Your task to perform on an android device: change the upload size in google photos Image 0: 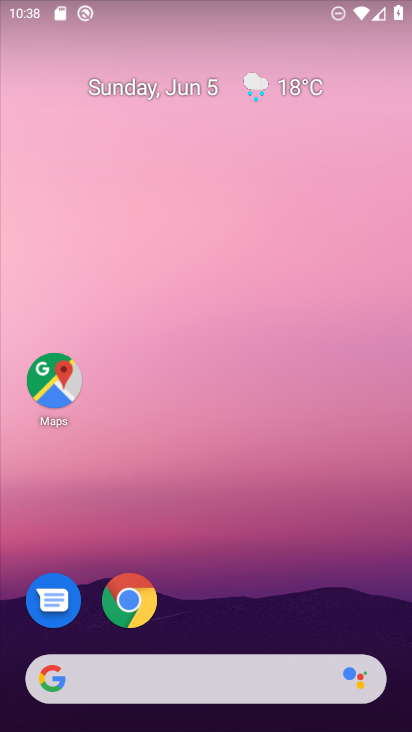
Step 0: drag from (254, 530) to (298, 183)
Your task to perform on an android device: change the upload size in google photos Image 1: 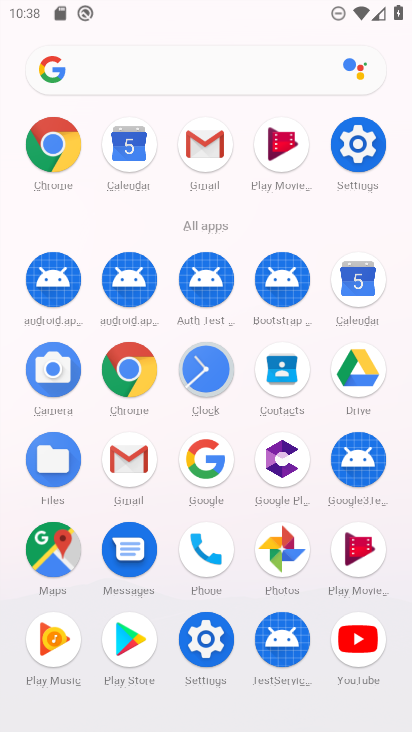
Step 1: click (288, 554)
Your task to perform on an android device: change the upload size in google photos Image 2: 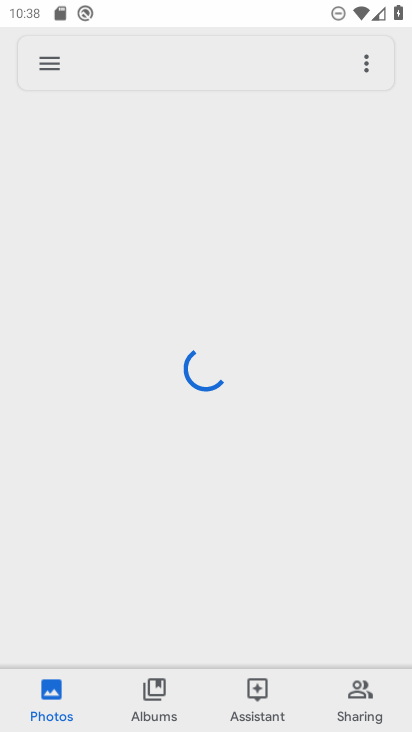
Step 2: click (54, 54)
Your task to perform on an android device: change the upload size in google photos Image 3: 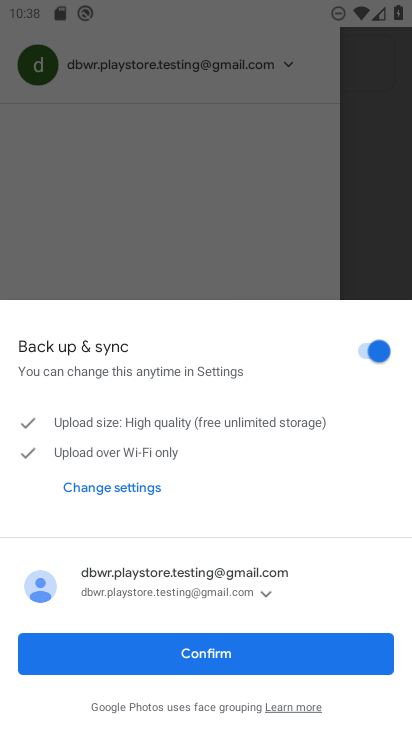
Step 3: click (191, 662)
Your task to perform on an android device: change the upload size in google photos Image 4: 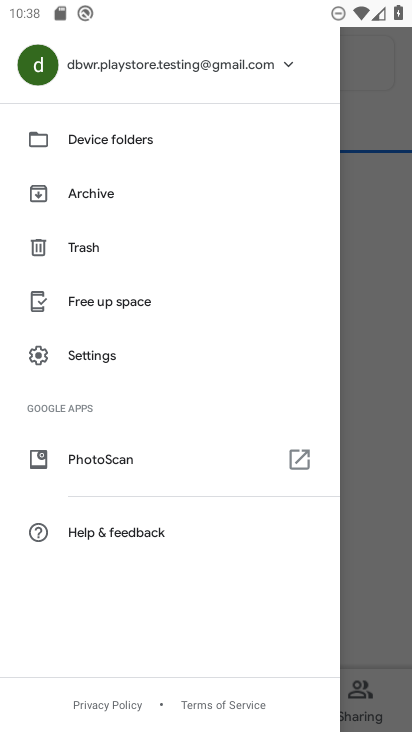
Step 4: click (112, 360)
Your task to perform on an android device: change the upload size in google photos Image 5: 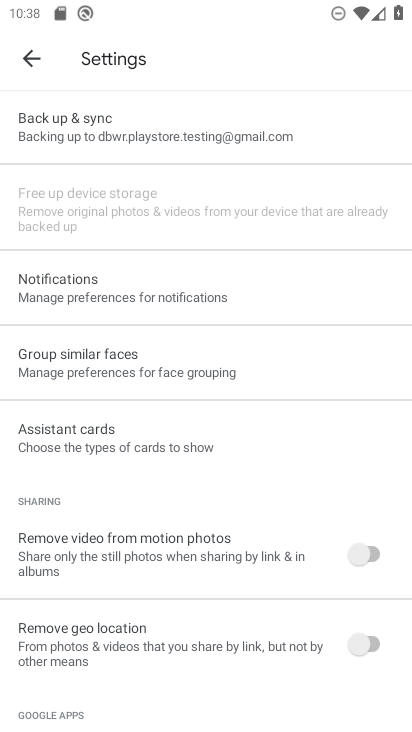
Step 5: click (143, 115)
Your task to perform on an android device: change the upload size in google photos Image 6: 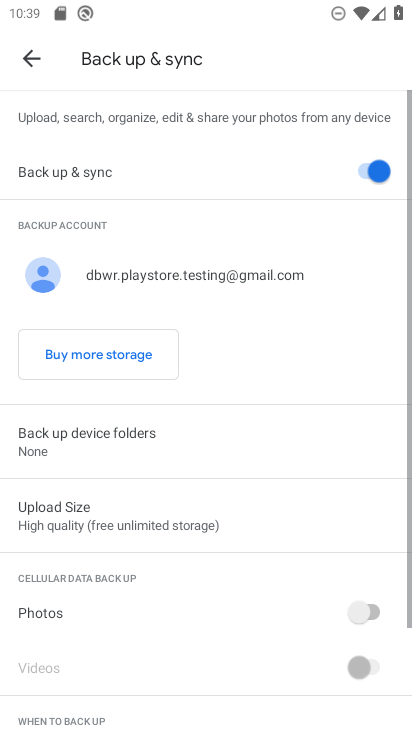
Step 6: click (67, 520)
Your task to perform on an android device: change the upload size in google photos Image 7: 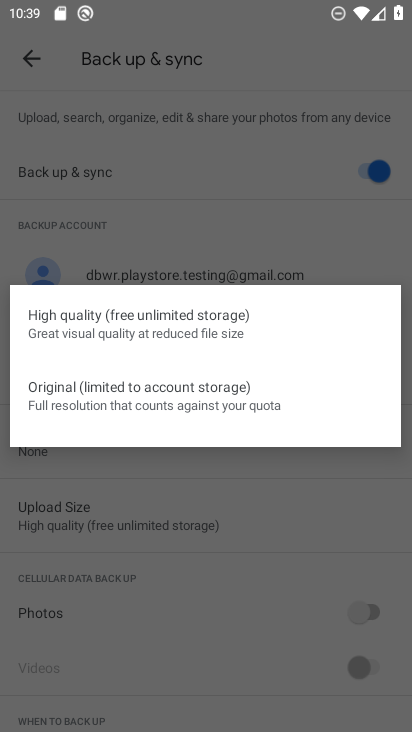
Step 7: click (96, 410)
Your task to perform on an android device: change the upload size in google photos Image 8: 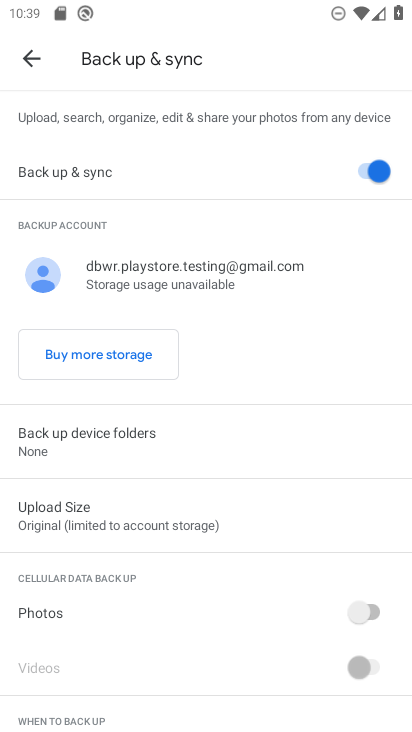
Step 8: task complete